Your task to perform on an android device: What's the weather? Image 0: 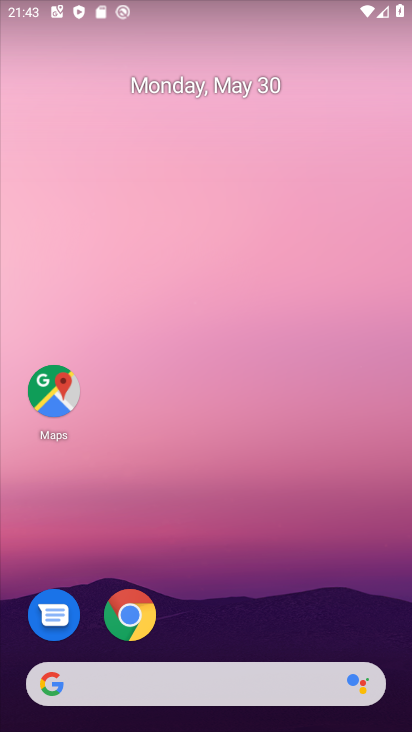
Step 0: click (127, 622)
Your task to perform on an android device: What's the weather? Image 1: 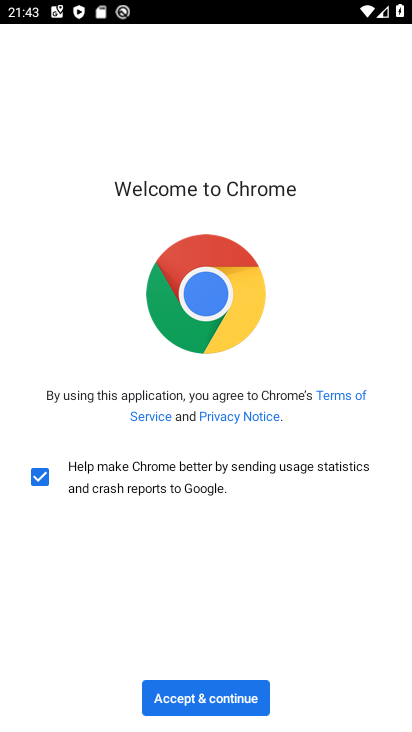
Step 1: click (193, 706)
Your task to perform on an android device: What's the weather? Image 2: 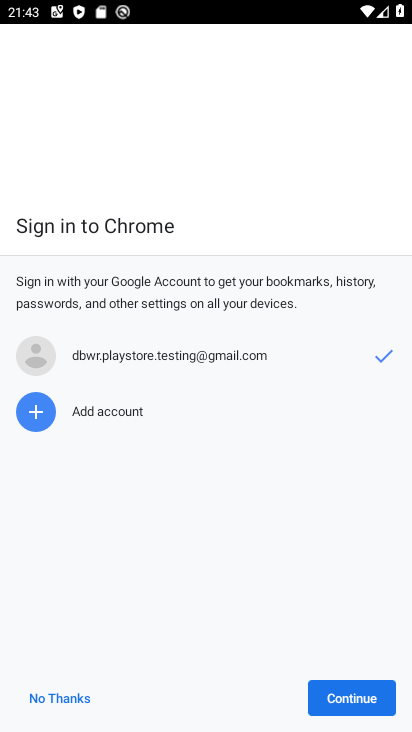
Step 2: click (327, 700)
Your task to perform on an android device: What's the weather? Image 3: 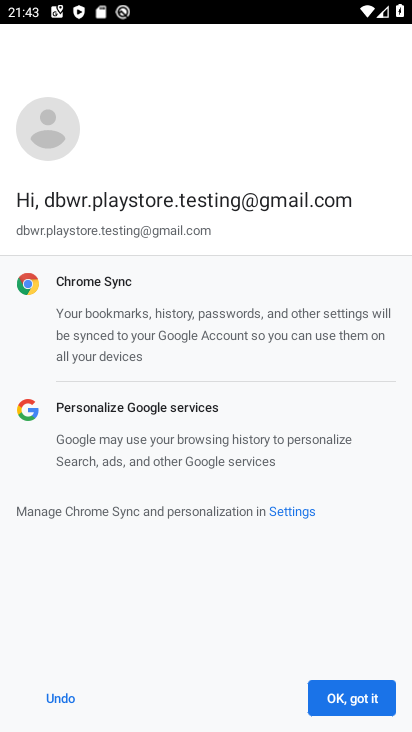
Step 3: click (326, 700)
Your task to perform on an android device: What's the weather? Image 4: 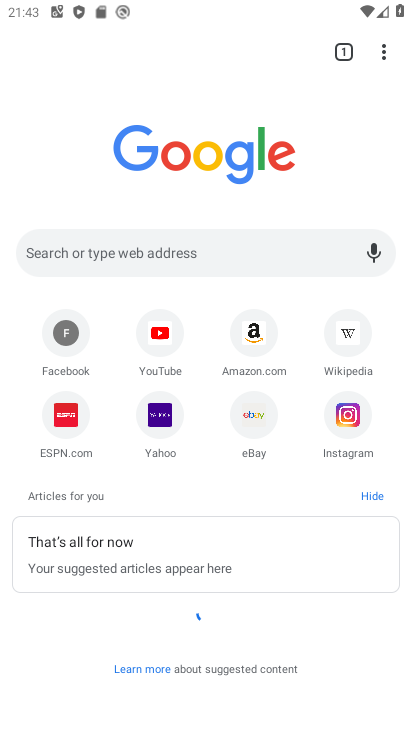
Step 4: click (182, 257)
Your task to perform on an android device: What's the weather? Image 5: 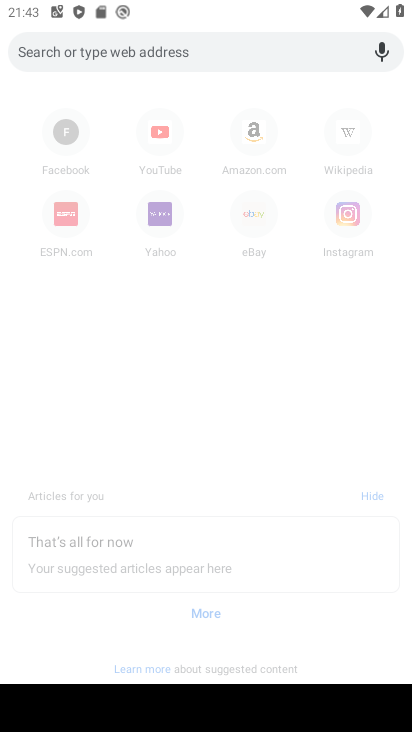
Step 5: type "What's the weather?"
Your task to perform on an android device: What's the weather? Image 6: 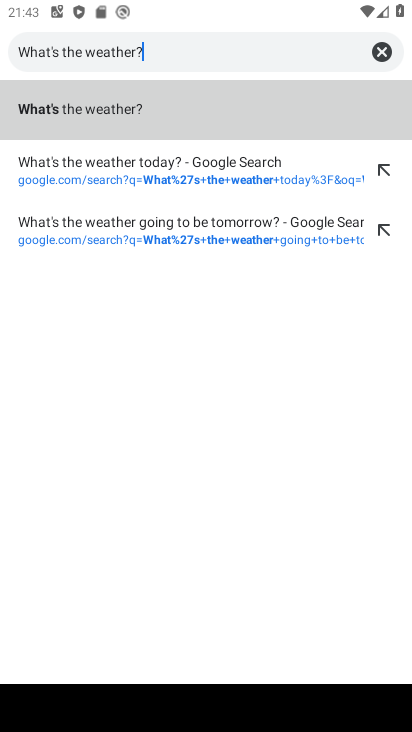
Step 6: click (73, 112)
Your task to perform on an android device: What's the weather? Image 7: 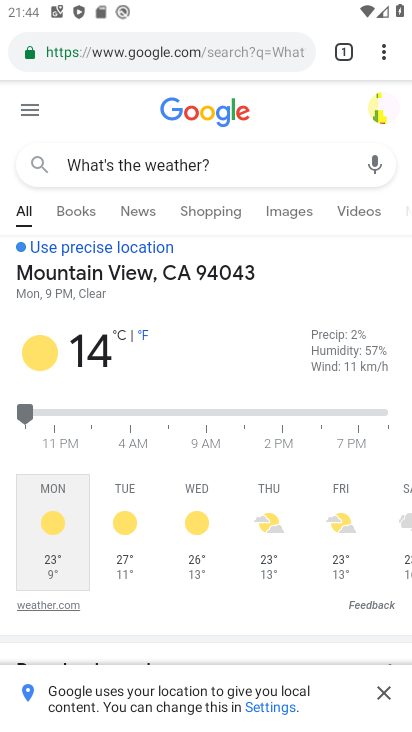
Step 7: click (123, 506)
Your task to perform on an android device: What's the weather? Image 8: 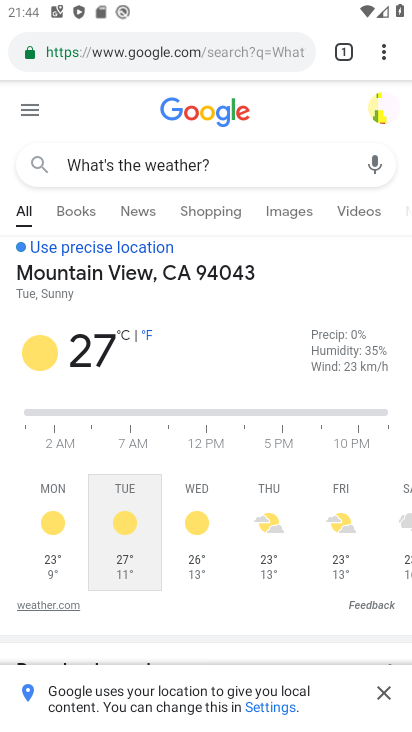
Step 8: task complete